Your task to perform on an android device: Go to Maps Image 0: 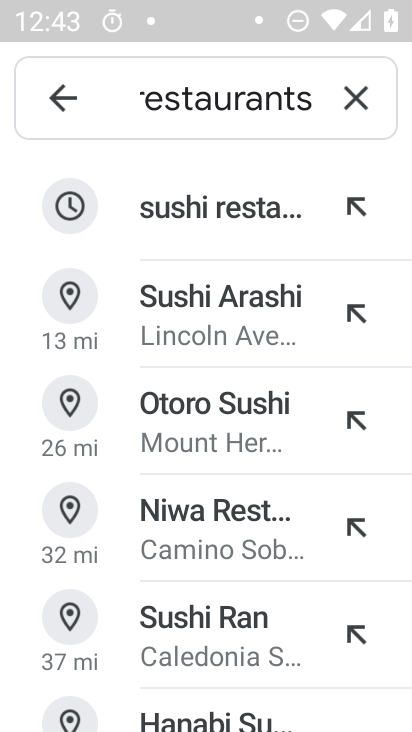
Step 0: press home button
Your task to perform on an android device: Go to Maps Image 1: 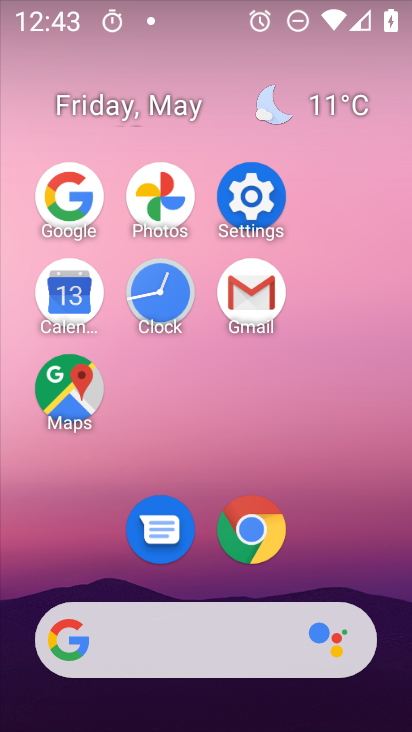
Step 1: click (56, 385)
Your task to perform on an android device: Go to Maps Image 2: 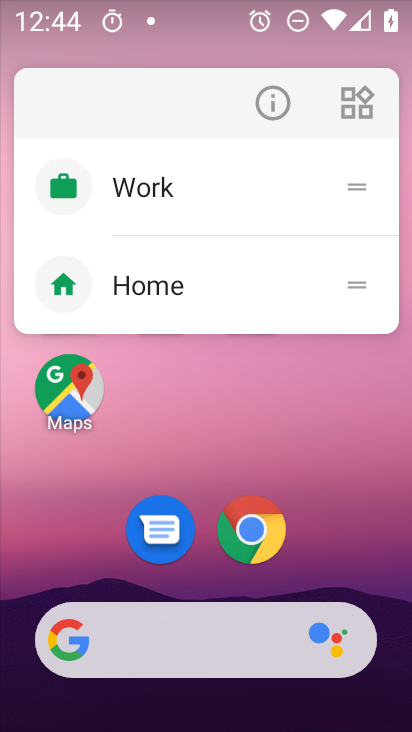
Step 2: click (87, 401)
Your task to perform on an android device: Go to Maps Image 3: 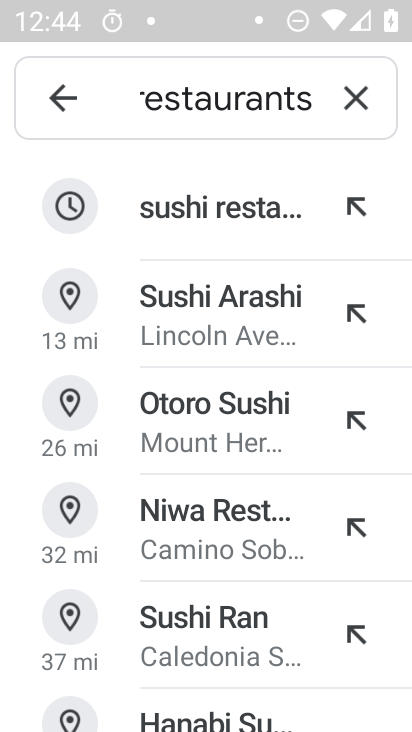
Step 3: task complete